Your task to perform on an android device: Go to Wikipedia Image 0: 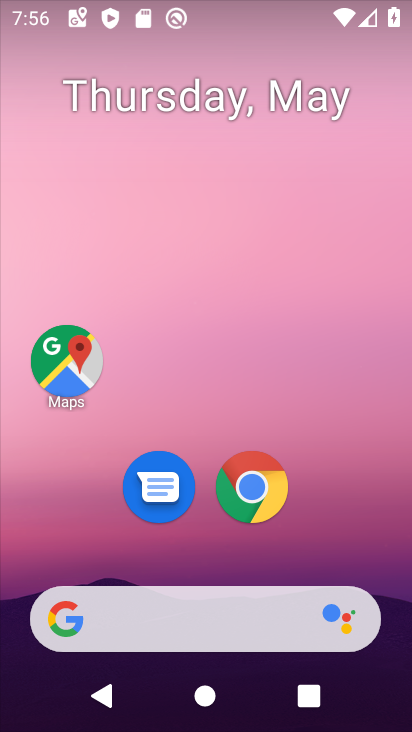
Step 0: drag from (195, 483) to (250, 138)
Your task to perform on an android device: Go to Wikipedia Image 1: 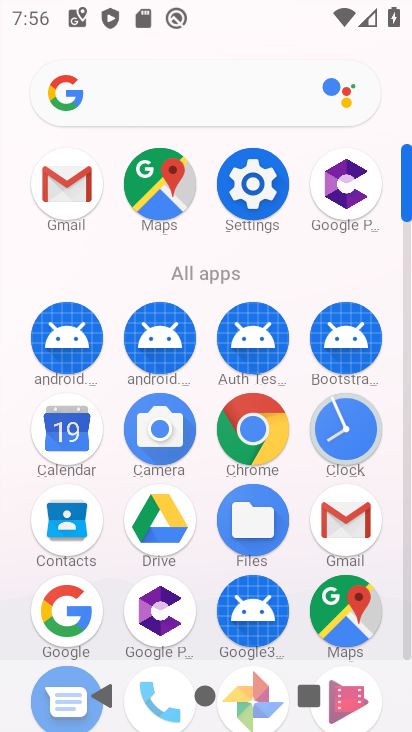
Step 1: click (235, 99)
Your task to perform on an android device: Go to Wikipedia Image 2: 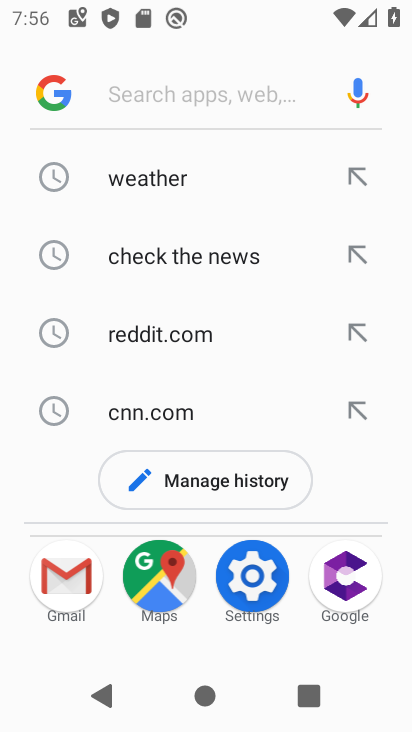
Step 2: type "wikipedia"
Your task to perform on an android device: Go to Wikipedia Image 3: 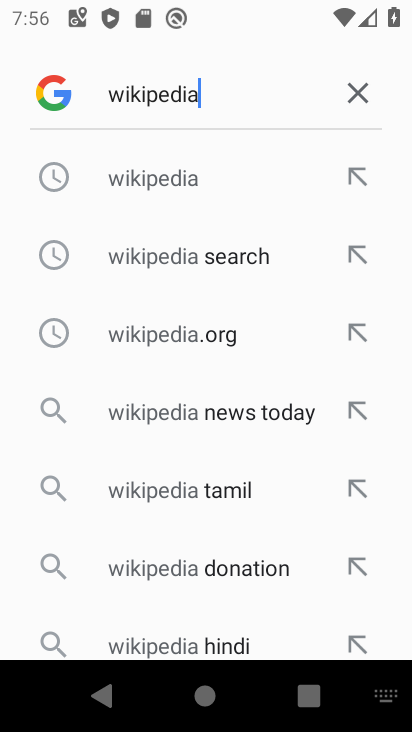
Step 3: click (153, 183)
Your task to perform on an android device: Go to Wikipedia Image 4: 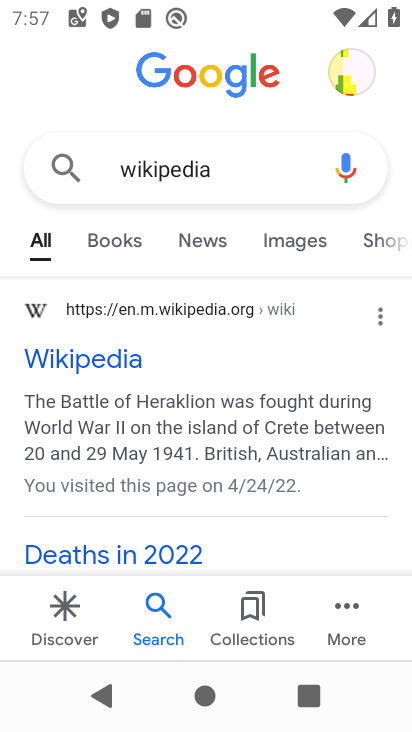
Step 4: drag from (276, 562) to (301, 203)
Your task to perform on an android device: Go to Wikipedia Image 5: 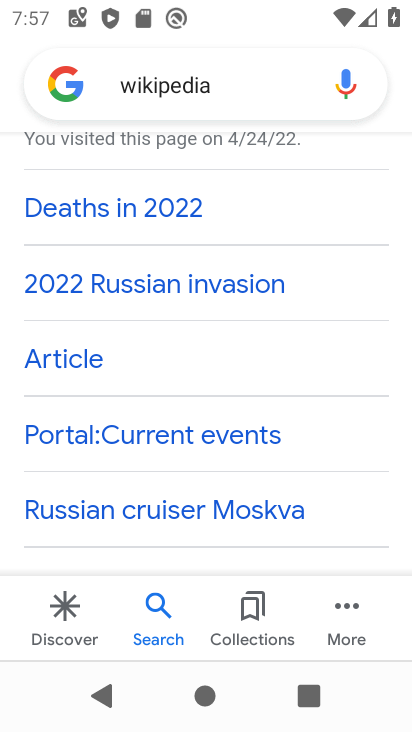
Step 5: drag from (113, 156) to (286, 574)
Your task to perform on an android device: Go to Wikipedia Image 6: 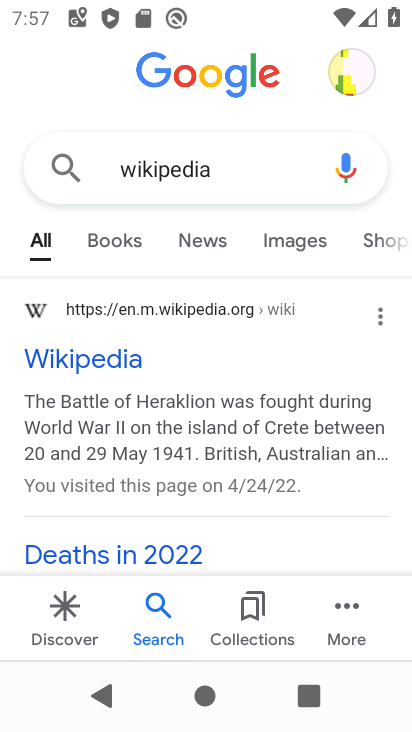
Step 6: click (42, 350)
Your task to perform on an android device: Go to Wikipedia Image 7: 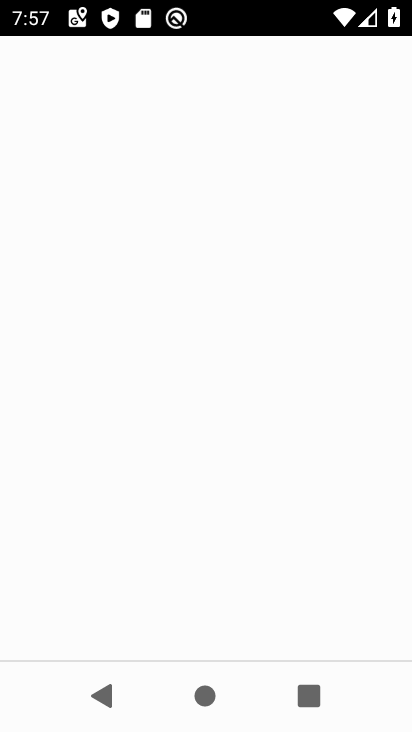
Step 7: task complete